Your task to perform on an android device: Open calendar and show me the second week of next month Image 0: 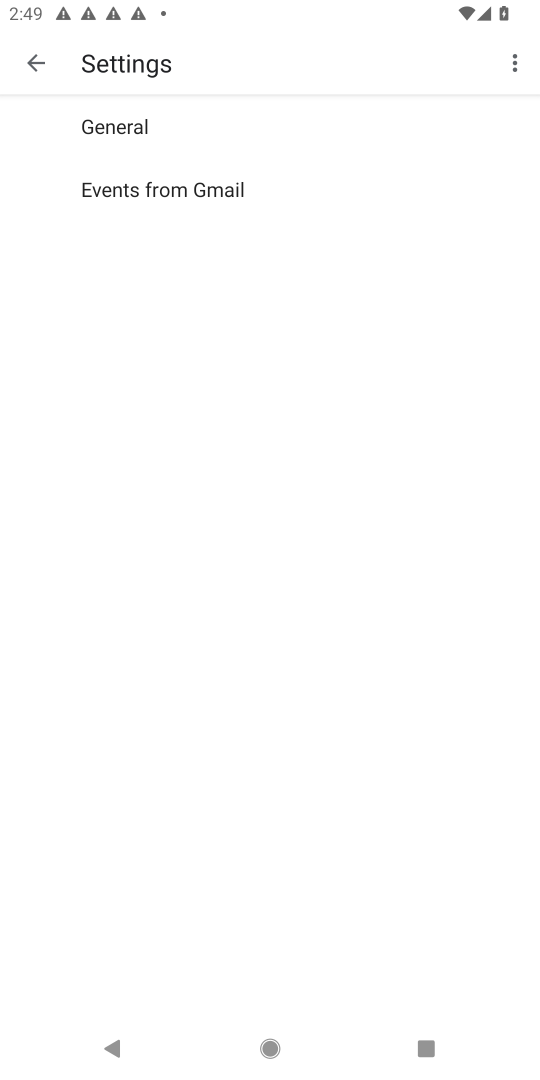
Step 0: press home button
Your task to perform on an android device: Open calendar and show me the second week of next month Image 1: 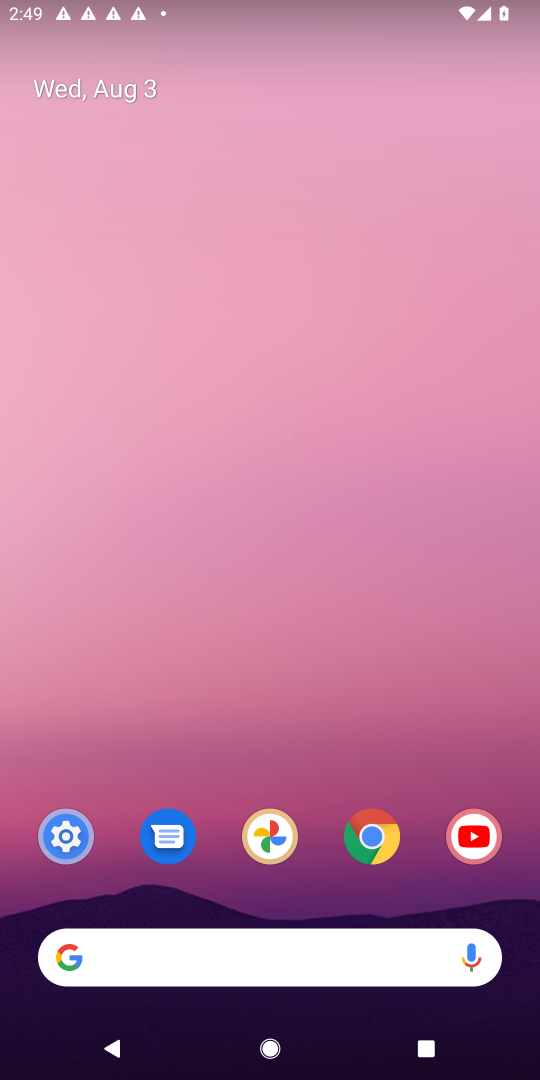
Step 1: drag from (127, 818) to (337, 130)
Your task to perform on an android device: Open calendar and show me the second week of next month Image 2: 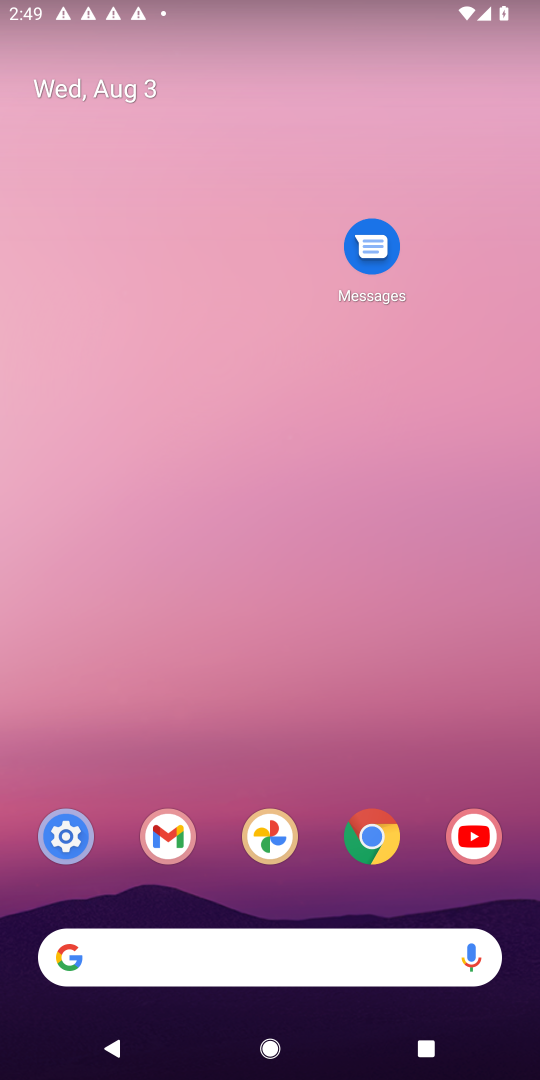
Step 2: drag from (29, 1008) to (331, 69)
Your task to perform on an android device: Open calendar and show me the second week of next month Image 3: 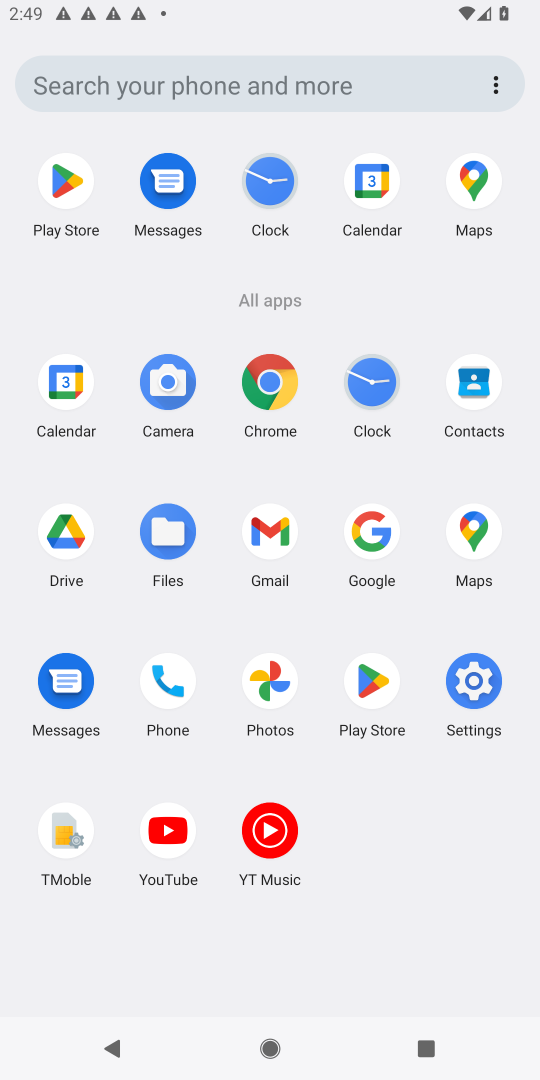
Step 3: click (382, 192)
Your task to perform on an android device: Open calendar and show me the second week of next month Image 4: 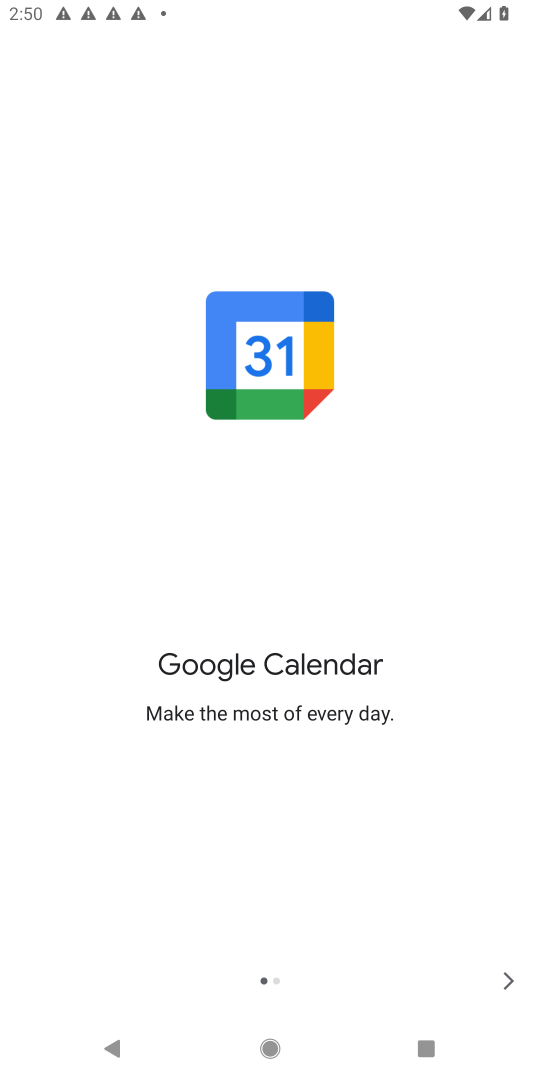
Step 4: click (515, 979)
Your task to perform on an android device: Open calendar and show me the second week of next month Image 5: 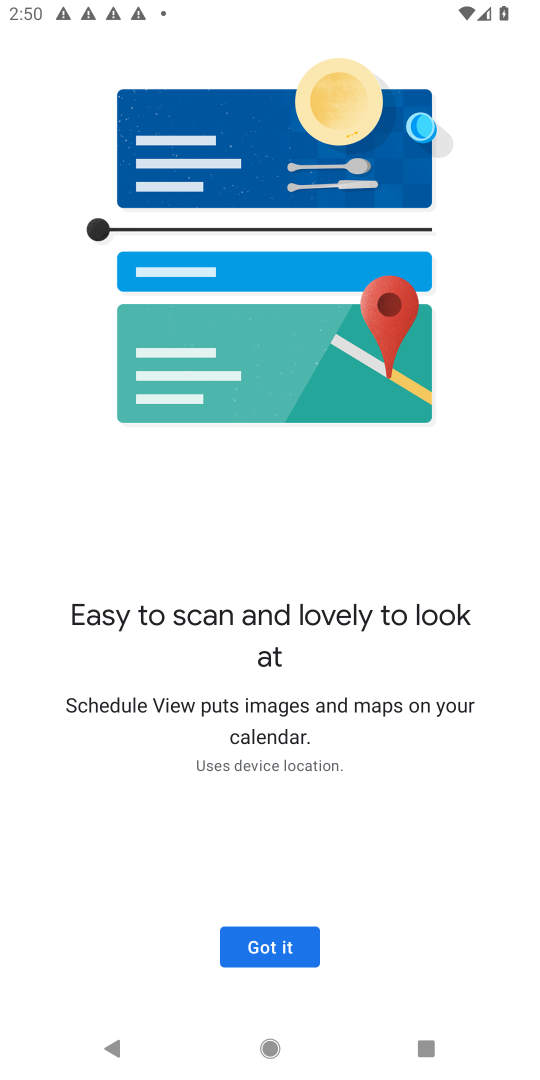
Step 5: click (261, 939)
Your task to perform on an android device: Open calendar and show me the second week of next month Image 6: 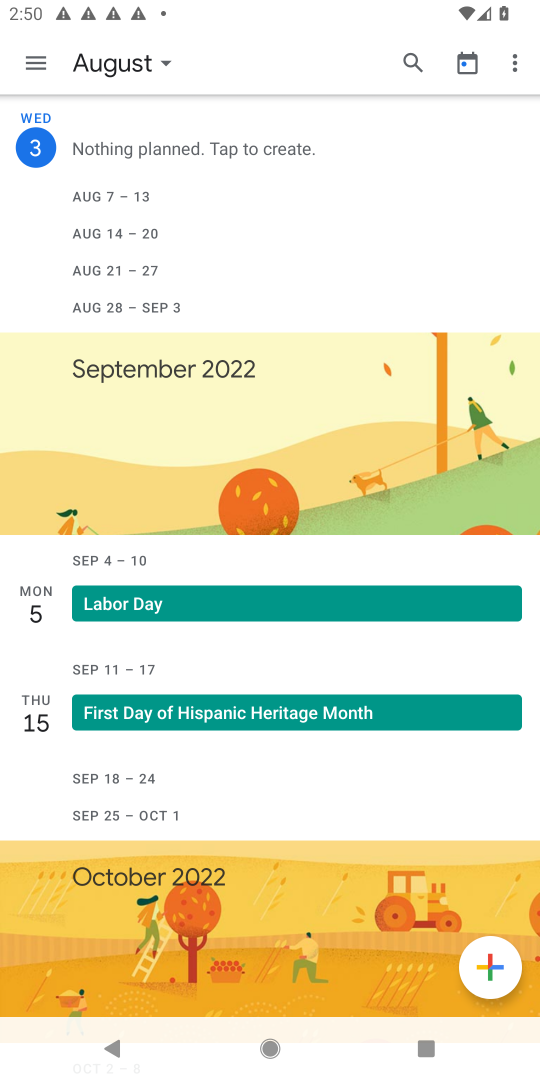
Step 6: click (161, 71)
Your task to perform on an android device: Open calendar and show me the second week of next month Image 7: 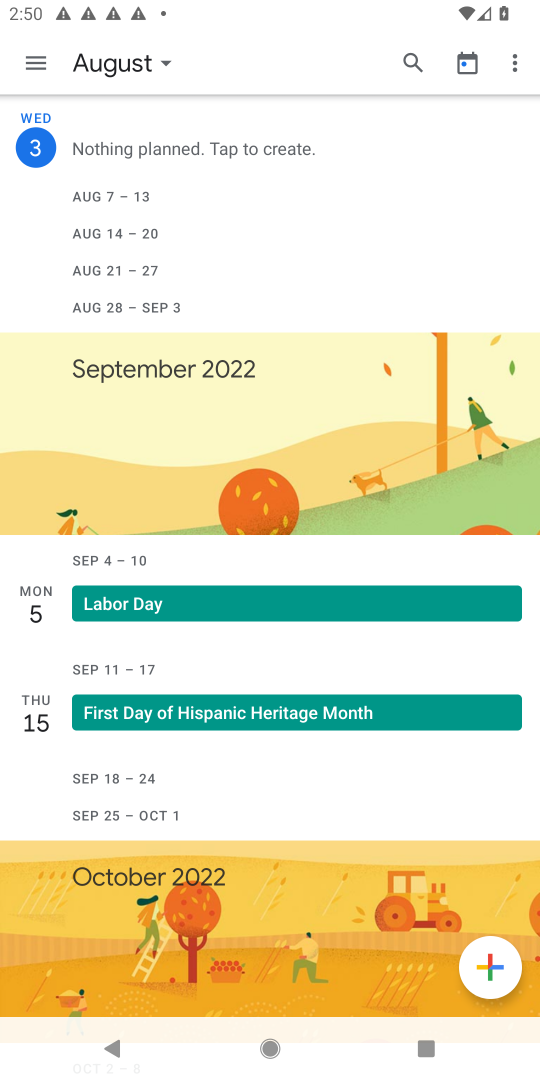
Step 7: click (162, 54)
Your task to perform on an android device: Open calendar and show me the second week of next month Image 8: 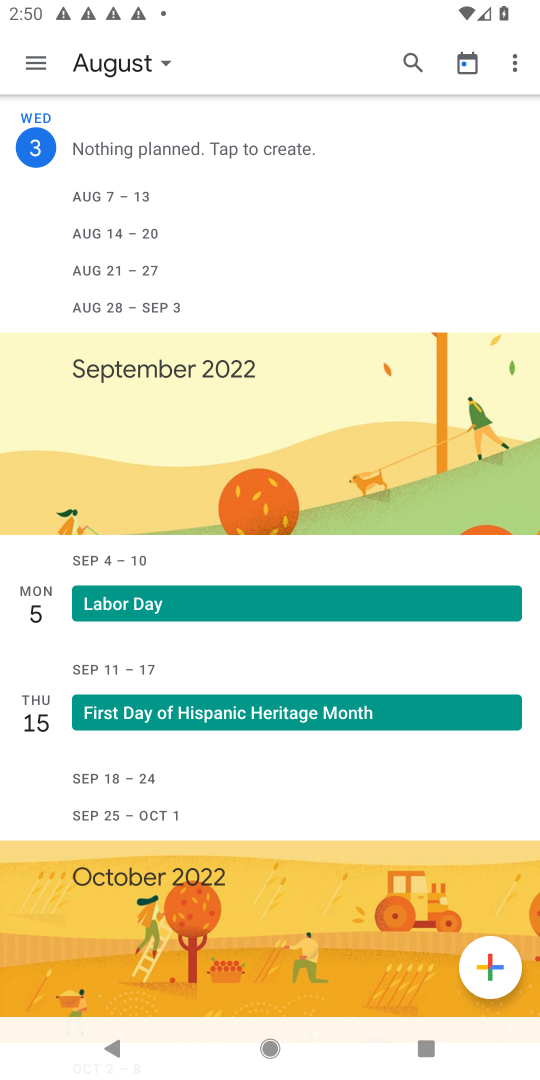
Step 8: click (144, 65)
Your task to perform on an android device: Open calendar and show me the second week of next month Image 9: 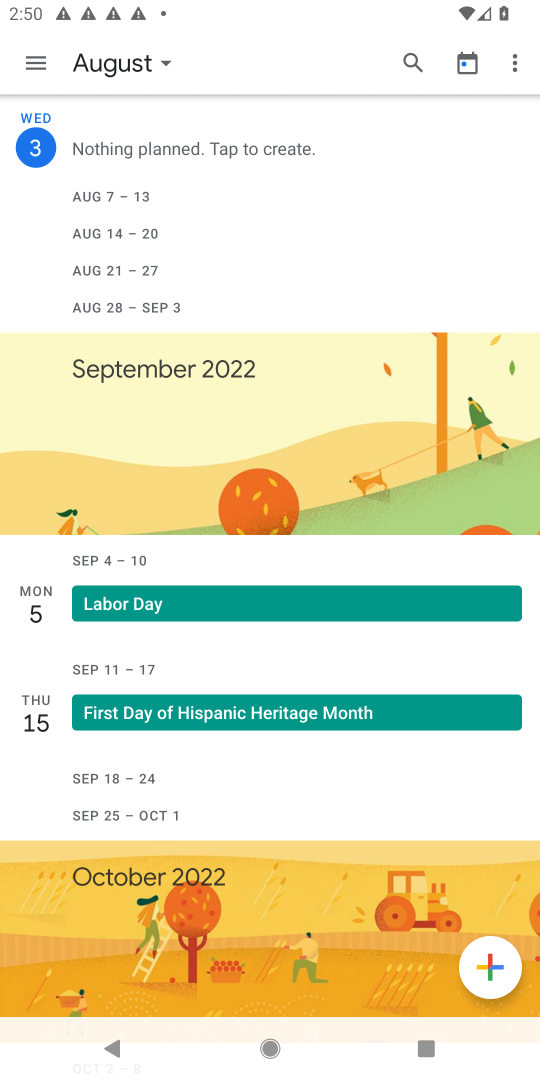
Step 9: click (158, 66)
Your task to perform on an android device: Open calendar and show me the second week of next month Image 10: 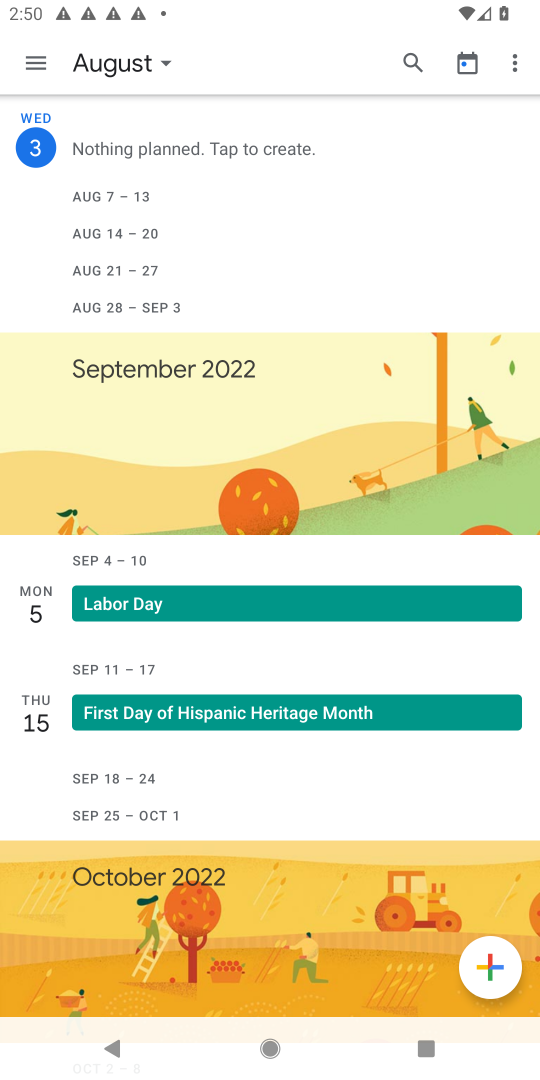
Step 10: click (159, 54)
Your task to perform on an android device: Open calendar and show me the second week of next month Image 11: 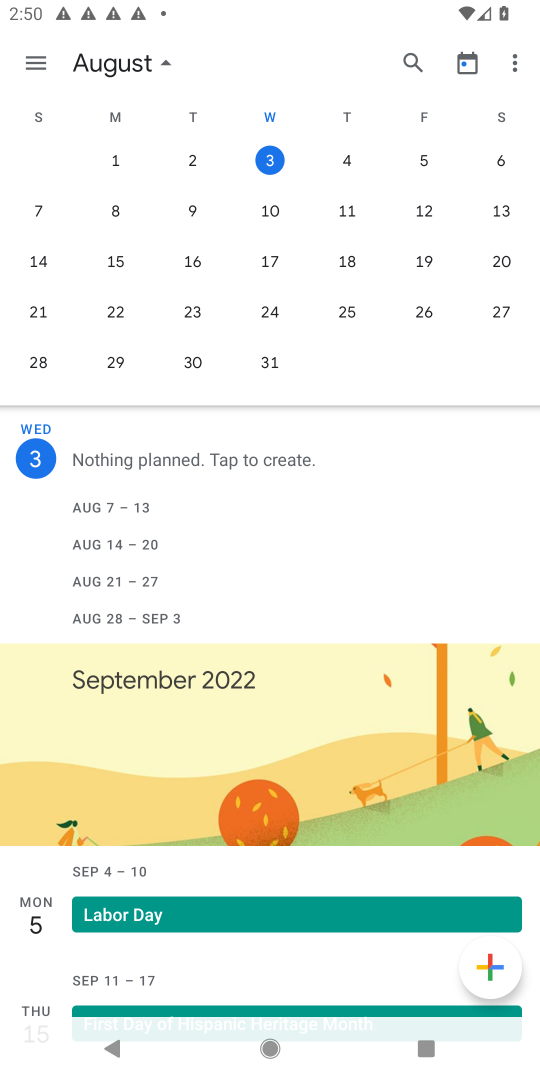
Step 11: drag from (488, 199) to (121, 280)
Your task to perform on an android device: Open calendar and show me the second week of next month Image 12: 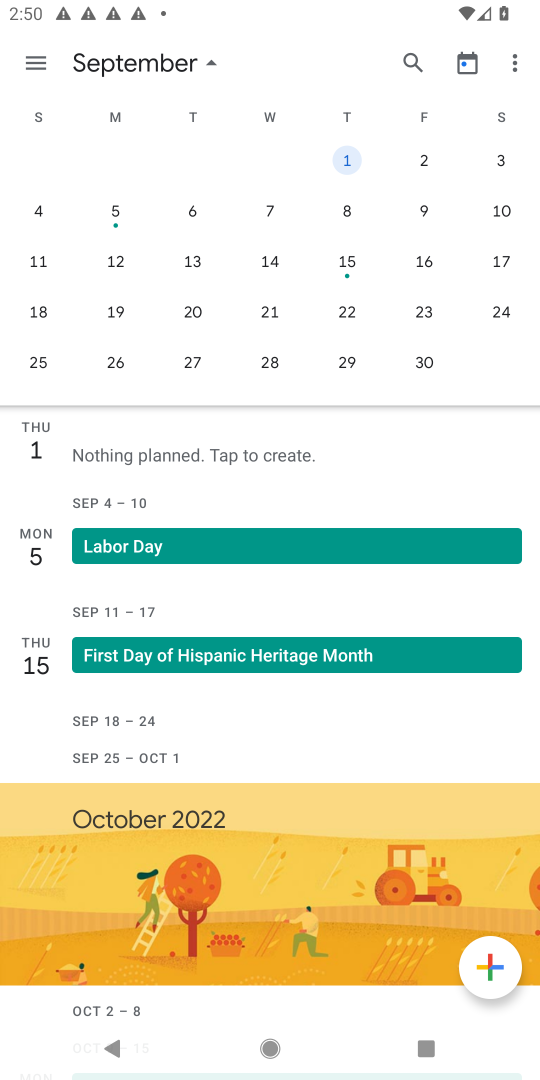
Step 12: click (108, 202)
Your task to perform on an android device: Open calendar and show me the second week of next month Image 13: 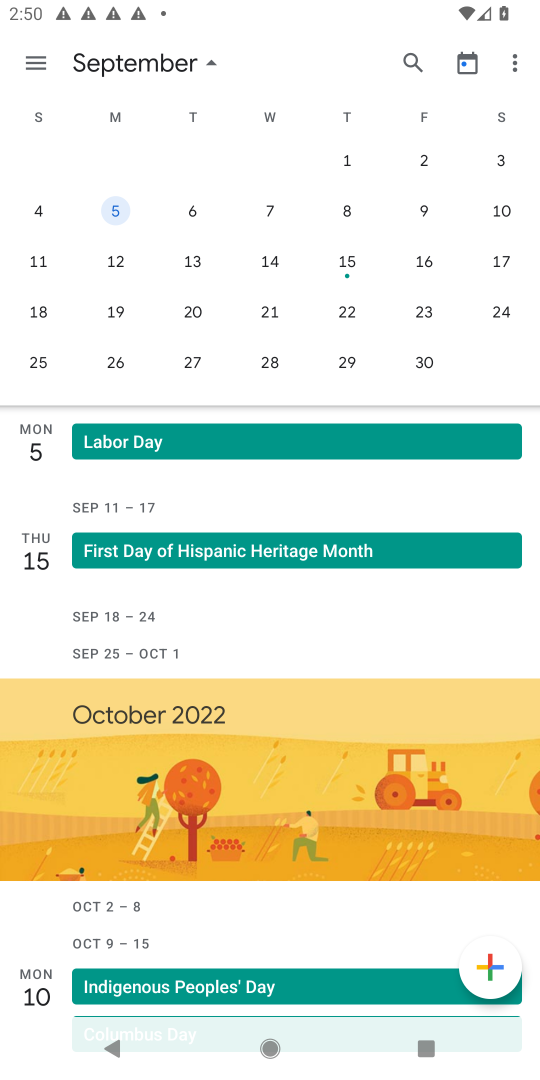
Step 13: task complete